Your task to perform on an android device: add a label to a message in the gmail app Image 0: 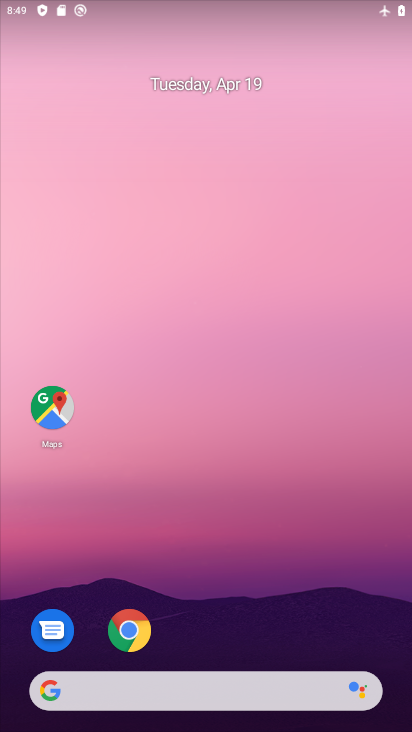
Step 0: drag from (276, 618) to (245, 134)
Your task to perform on an android device: add a label to a message in the gmail app Image 1: 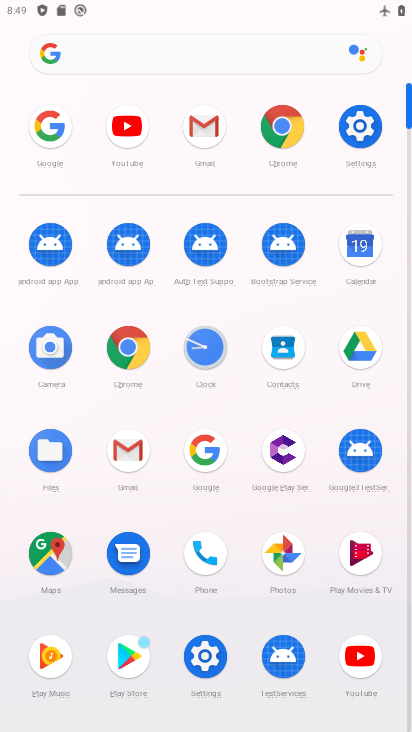
Step 1: click (125, 464)
Your task to perform on an android device: add a label to a message in the gmail app Image 2: 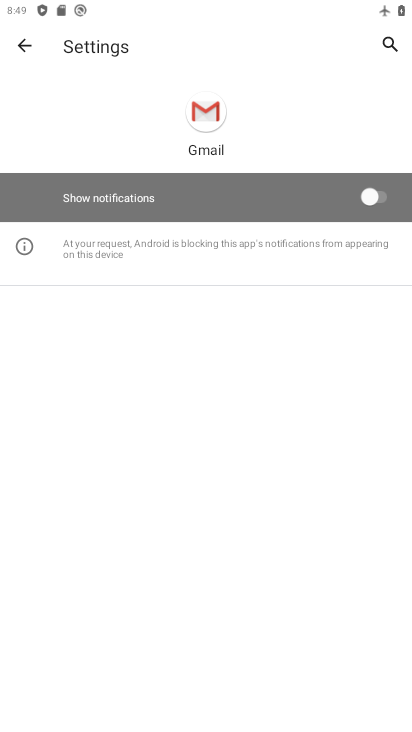
Step 2: click (24, 44)
Your task to perform on an android device: add a label to a message in the gmail app Image 3: 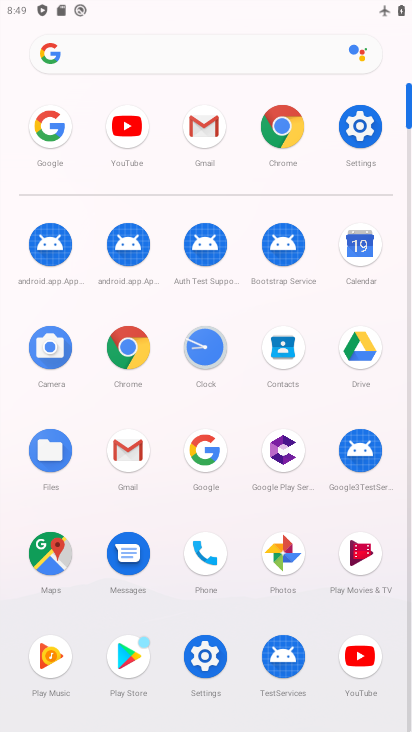
Step 3: click (137, 465)
Your task to perform on an android device: add a label to a message in the gmail app Image 4: 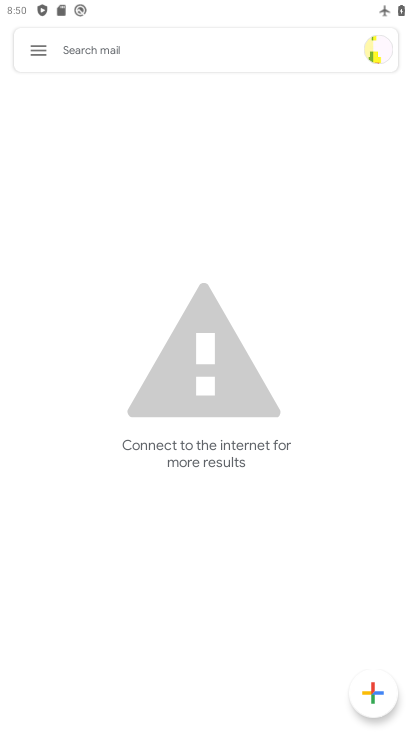
Step 4: click (49, 55)
Your task to perform on an android device: add a label to a message in the gmail app Image 5: 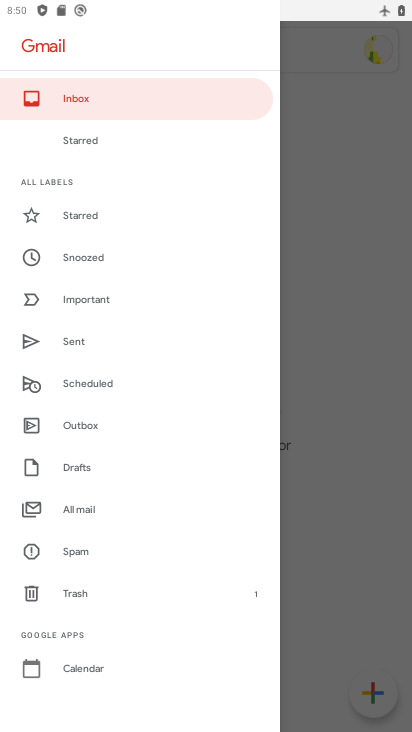
Step 5: click (123, 511)
Your task to perform on an android device: add a label to a message in the gmail app Image 6: 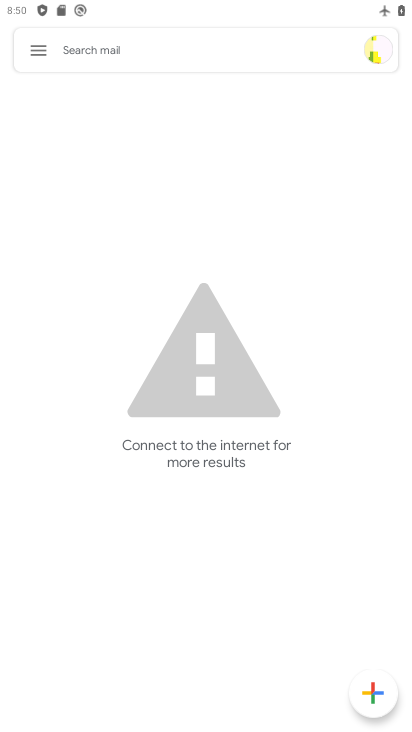
Step 6: task complete